Your task to perform on an android device: turn notification dots off Image 0: 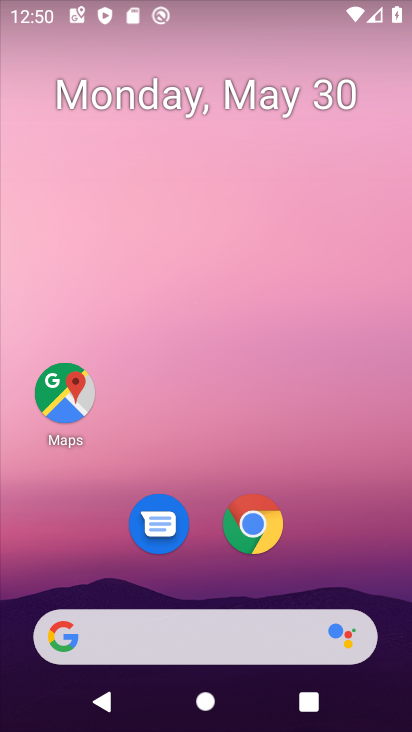
Step 0: drag from (339, 527) to (318, 37)
Your task to perform on an android device: turn notification dots off Image 1: 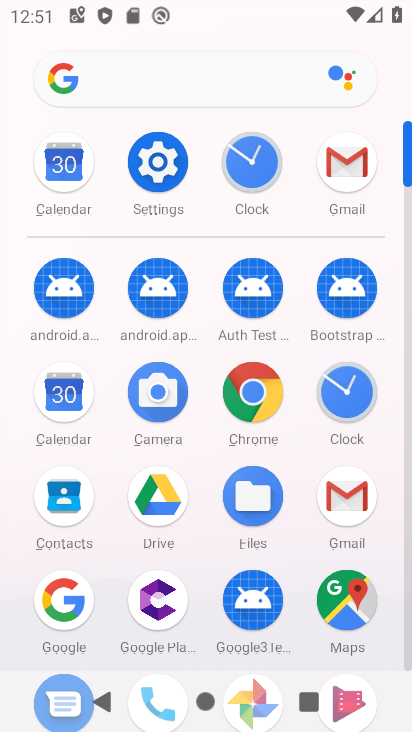
Step 1: click (167, 168)
Your task to perform on an android device: turn notification dots off Image 2: 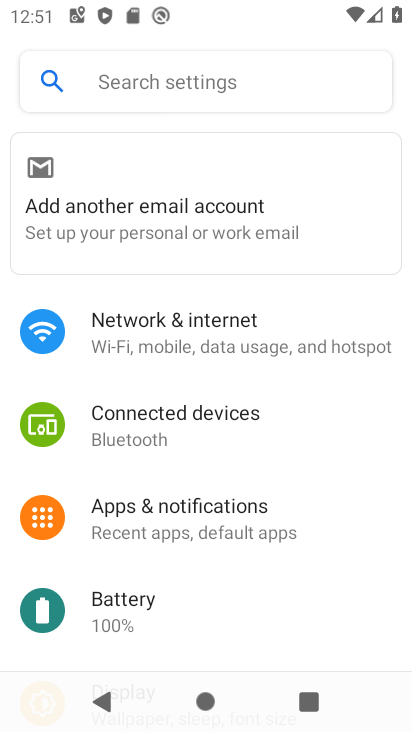
Step 2: click (187, 524)
Your task to perform on an android device: turn notification dots off Image 3: 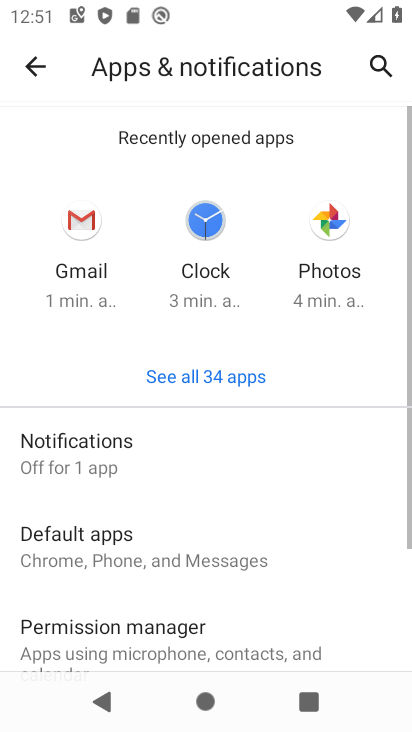
Step 3: drag from (197, 487) to (256, 53)
Your task to perform on an android device: turn notification dots off Image 4: 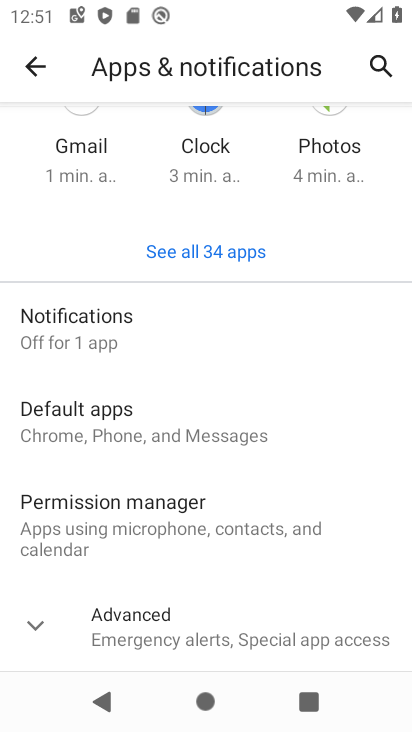
Step 4: click (35, 624)
Your task to perform on an android device: turn notification dots off Image 5: 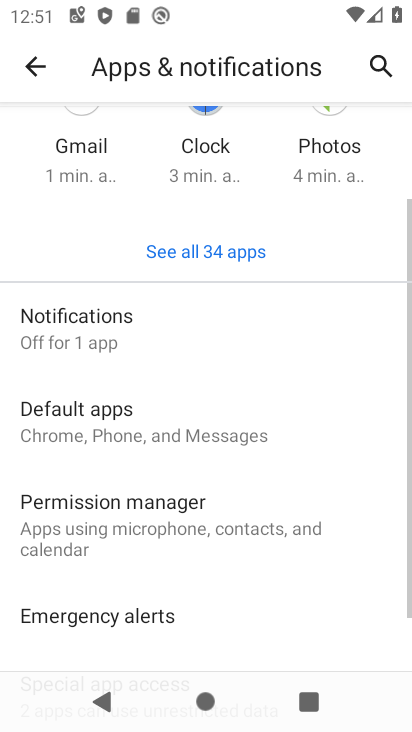
Step 5: click (165, 339)
Your task to perform on an android device: turn notification dots off Image 6: 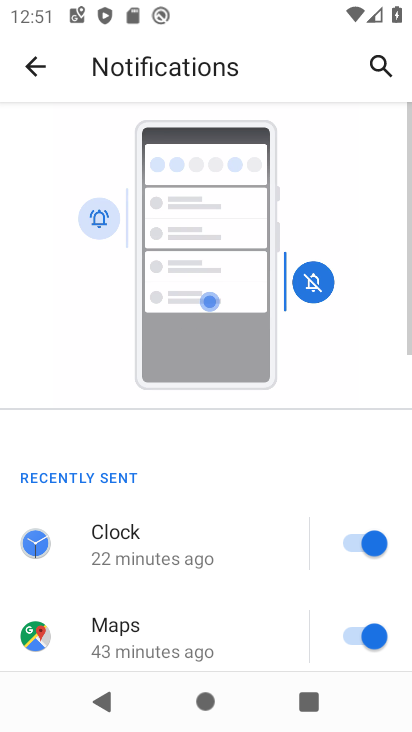
Step 6: drag from (213, 539) to (296, 0)
Your task to perform on an android device: turn notification dots off Image 7: 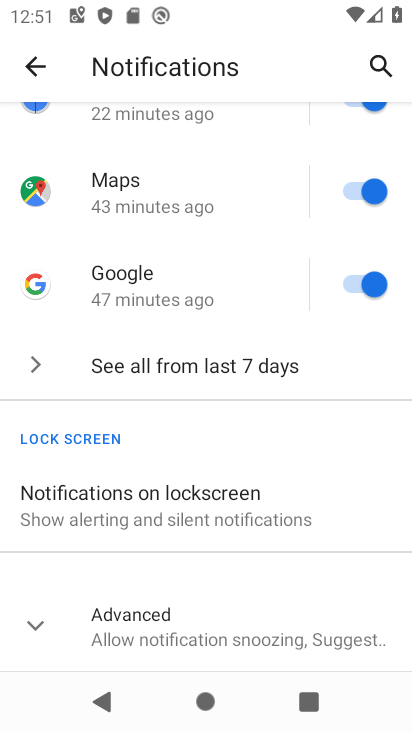
Step 7: click (35, 628)
Your task to perform on an android device: turn notification dots off Image 8: 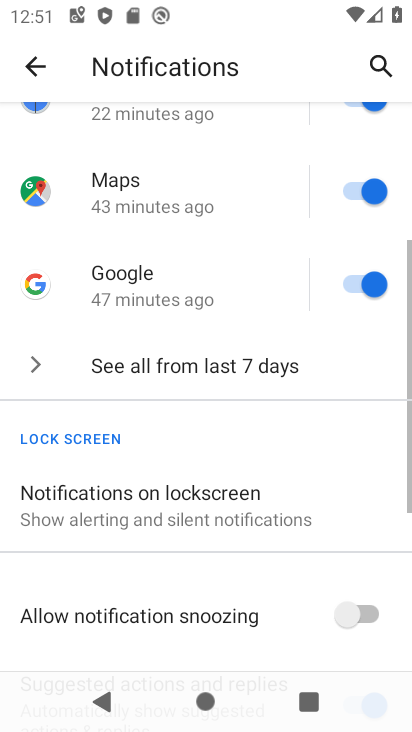
Step 8: drag from (203, 568) to (260, 166)
Your task to perform on an android device: turn notification dots off Image 9: 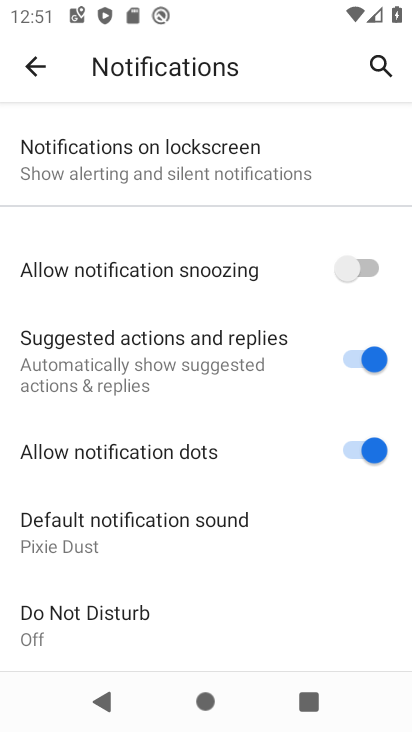
Step 9: click (349, 449)
Your task to perform on an android device: turn notification dots off Image 10: 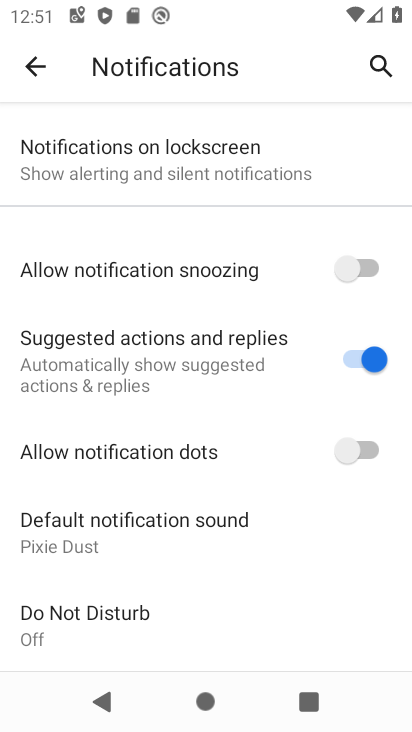
Step 10: task complete